Your task to perform on an android device: read, delete, or share a saved page in the chrome app Image 0: 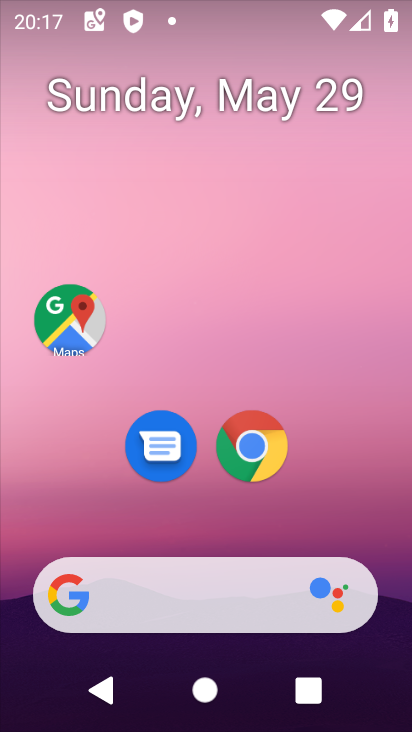
Step 0: click (224, 466)
Your task to perform on an android device: read, delete, or share a saved page in the chrome app Image 1: 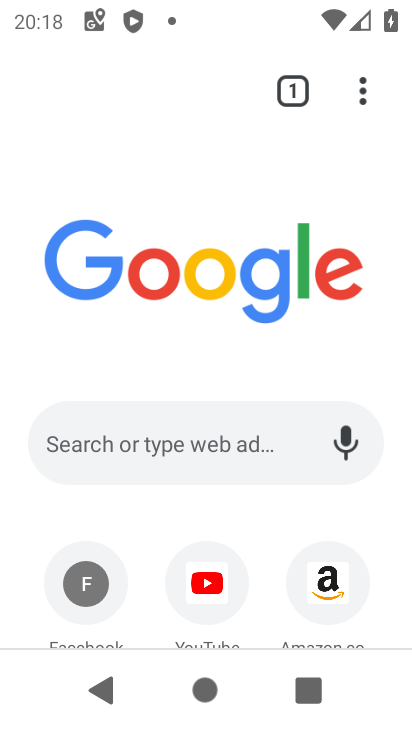
Step 1: click (378, 157)
Your task to perform on an android device: read, delete, or share a saved page in the chrome app Image 2: 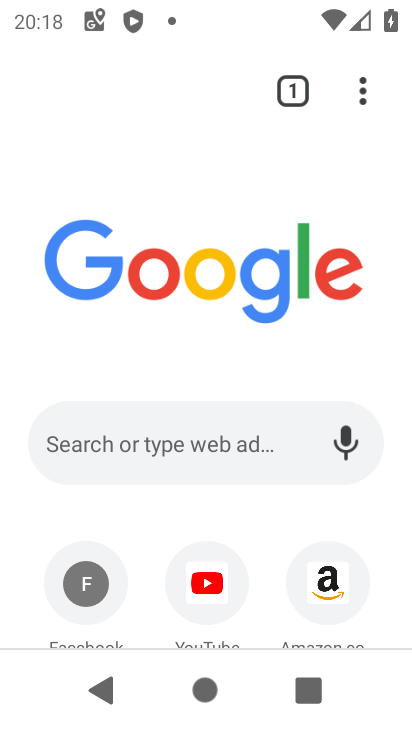
Step 2: task complete